Your task to perform on an android device: toggle airplane mode Image 0: 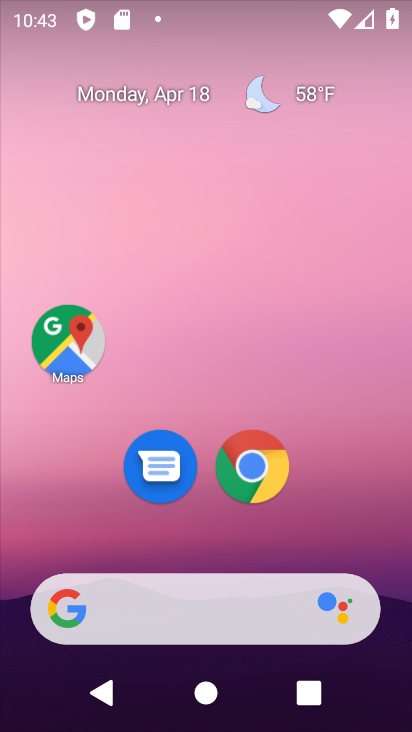
Step 0: drag from (215, 348) to (196, 97)
Your task to perform on an android device: toggle airplane mode Image 1: 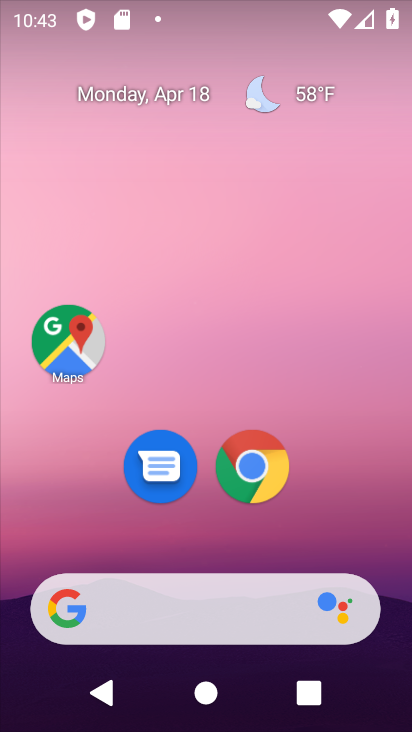
Step 1: drag from (195, 645) to (181, 190)
Your task to perform on an android device: toggle airplane mode Image 2: 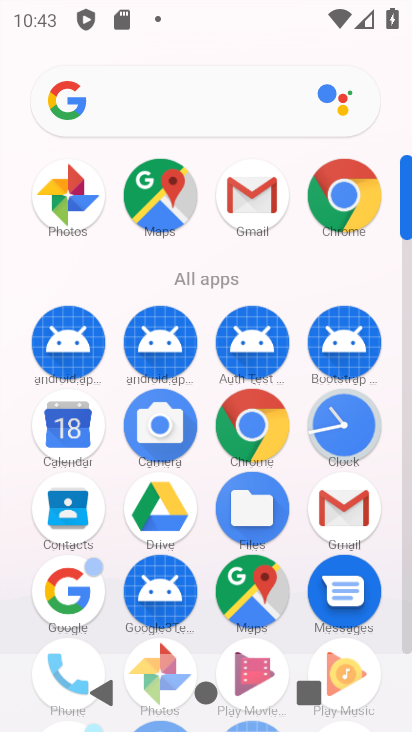
Step 2: drag from (210, 594) to (207, 143)
Your task to perform on an android device: toggle airplane mode Image 3: 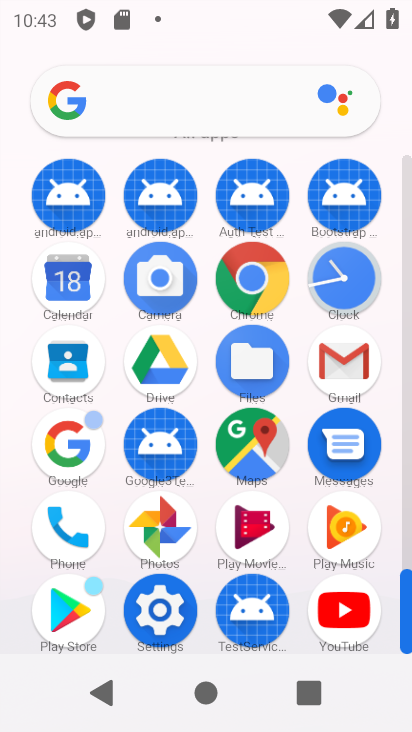
Step 3: click (161, 624)
Your task to perform on an android device: toggle airplane mode Image 4: 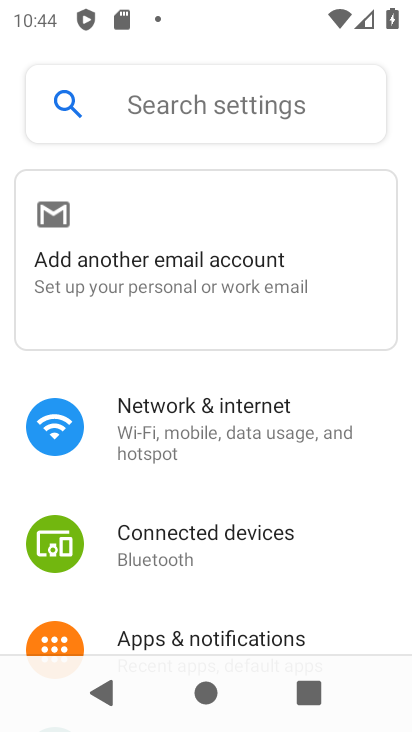
Step 4: click (196, 458)
Your task to perform on an android device: toggle airplane mode Image 5: 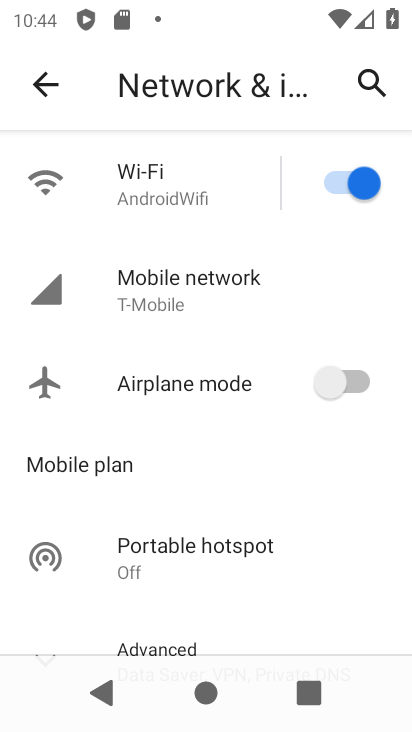
Step 5: click (337, 393)
Your task to perform on an android device: toggle airplane mode Image 6: 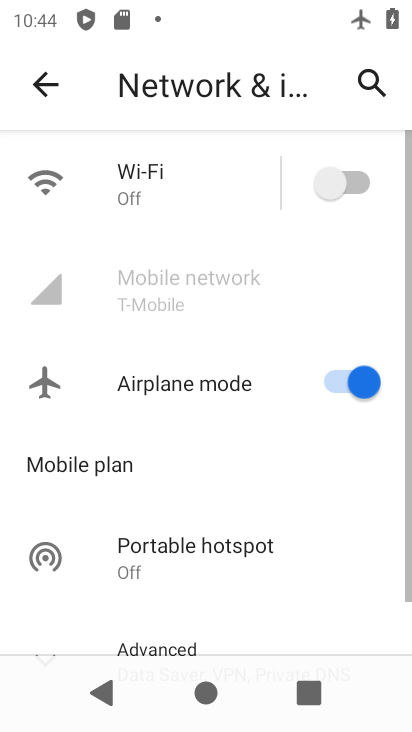
Step 6: task complete